Your task to perform on an android device: turn on showing notifications on the lock screen Image 0: 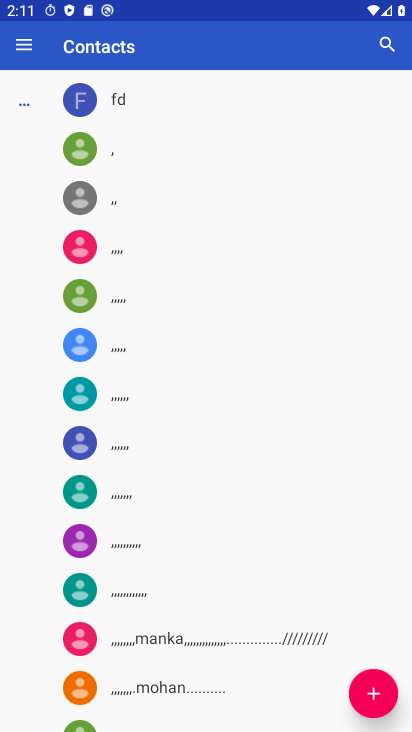
Step 0: press home button
Your task to perform on an android device: turn on showing notifications on the lock screen Image 1: 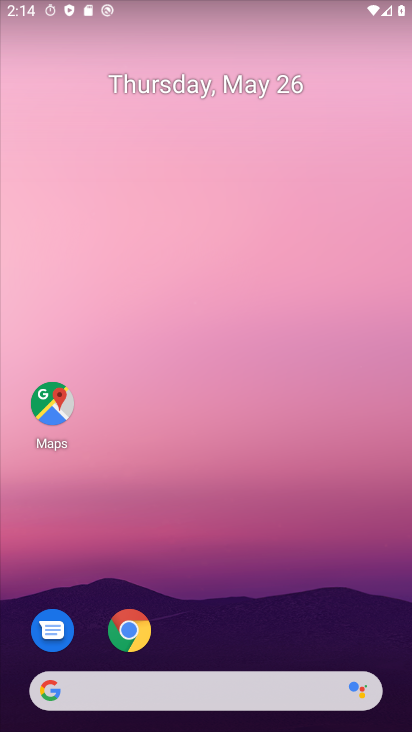
Step 1: drag from (236, 593) to (185, 85)
Your task to perform on an android device: turn on showing notifications on the lock screen Image 2: 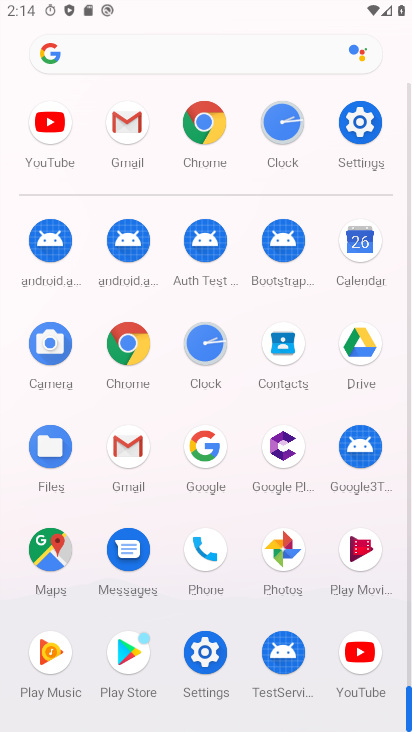
Step 2: click (350, 133)
Your task to perform on an android device: turn on showing notifications on the lock screen Image 3: 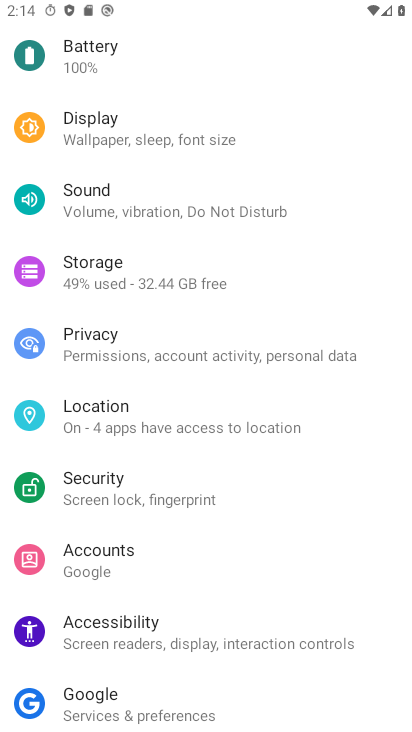
Step 3: drag from (244, 249) to (273, 573)
Your task to perform on an android device: turn on showing notifications on the lock screen Image 4: 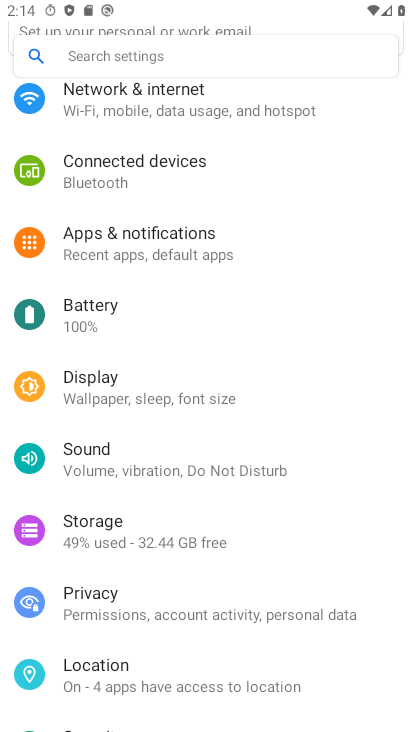
Step 4: click (273, 252)
Your task to perform on an android device: turn on showing notifications on the lock screen Image 5: 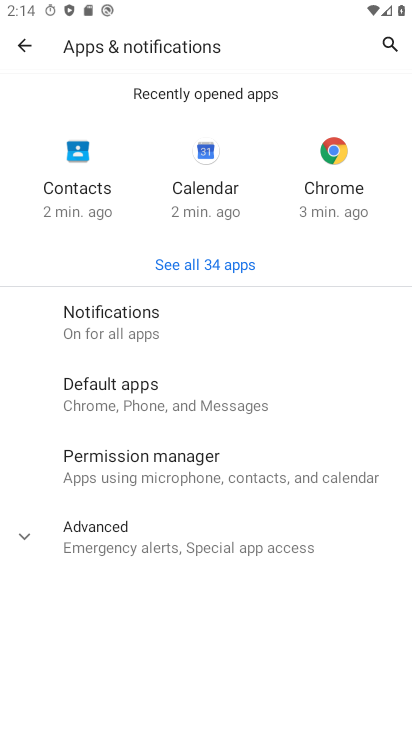
Step 5: click (225, 322)
Your task to perform on an android device: turn on showing notifications on the lock screen Image 6: 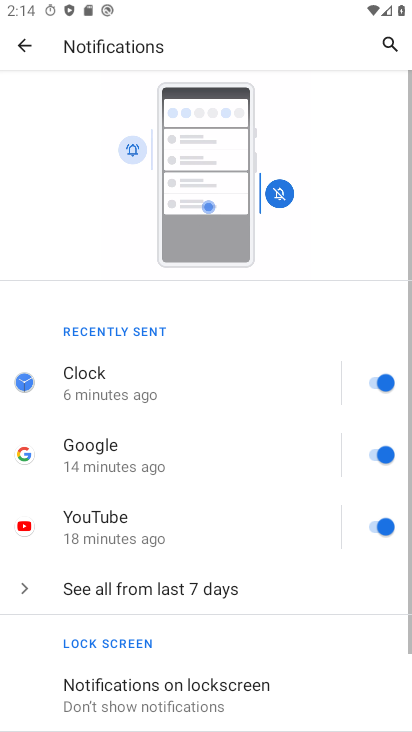
Step 6: drag from (193, 591) to (245, 183)
Your task to perform on an android device: turn on showing notifications on the lock screen Image 7: 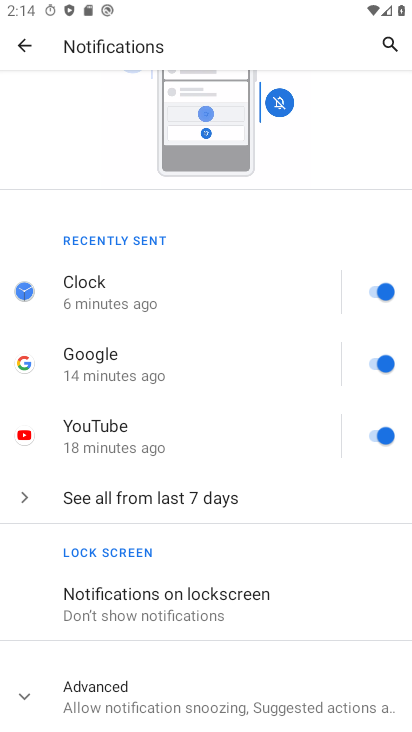
Step 7: click (201, 590)
Your task to perform on an android device: turn on showing notifications on the lock screen Image 8: 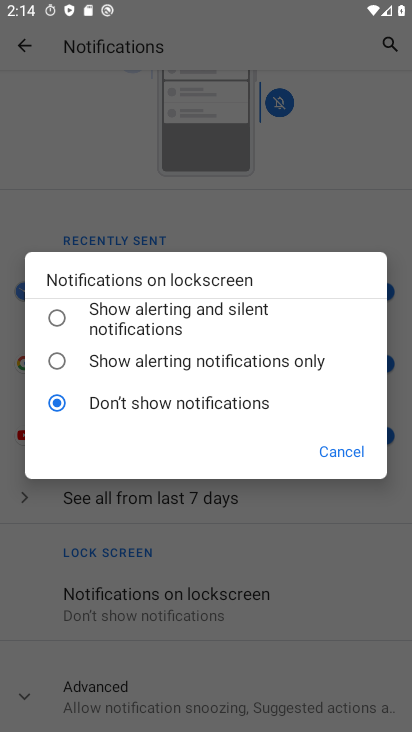
Step 8: click (181, 315)
Your task to perform on an android device: turn on showing notifications on the lock screen Image 9: 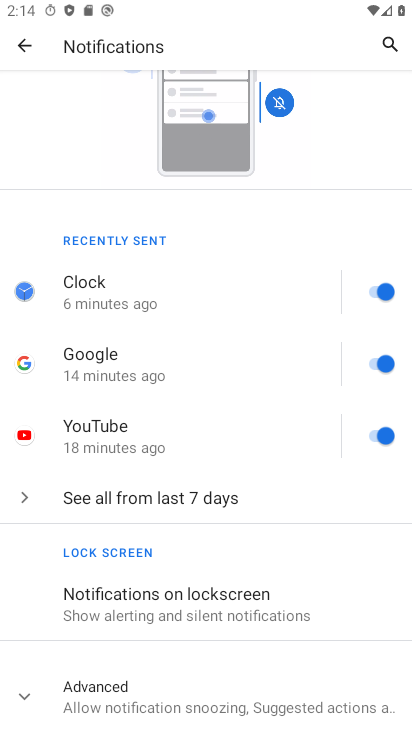
Step 9: task complete